Your task to perform on an android device: find which apps use the phone's location Image 0: 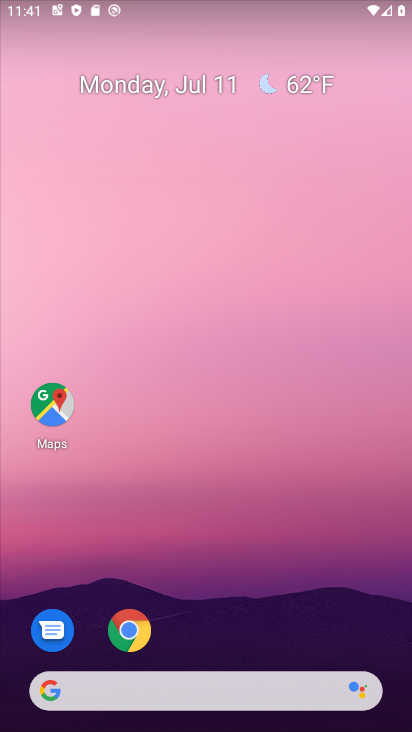
Step 0: drag from (248, 676) to (403, 190)
Your task to perform on an android device: find which apps use the phone's location Image 1: 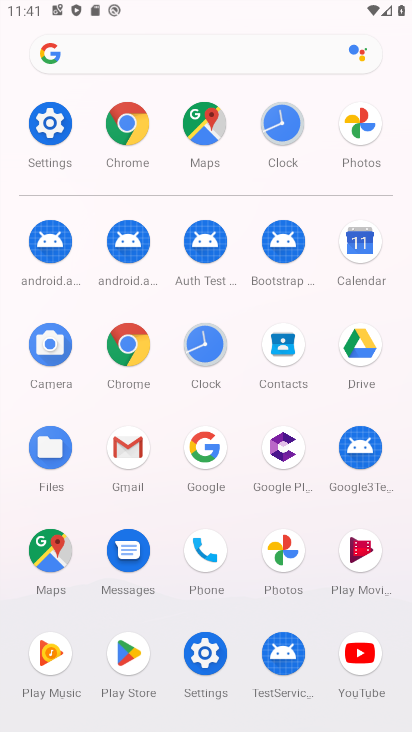
Step 1: click (202, 649)
Your task to perform on an android device: find which apps use the phone's location Image 2: 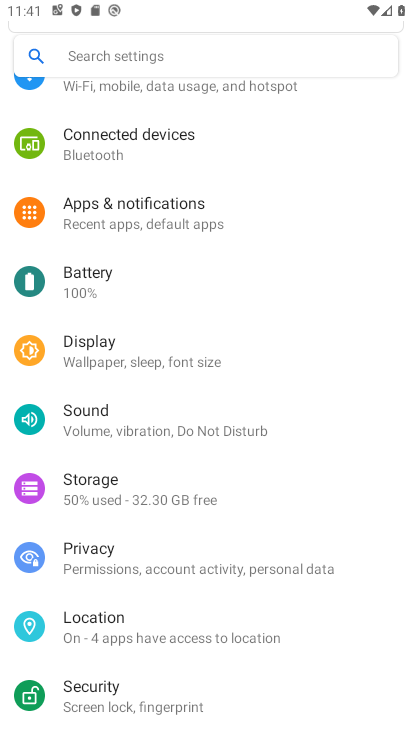
Step 2: click (129, 625)
Your task to perform on an android device: find which apps use the phone's location Image 3: 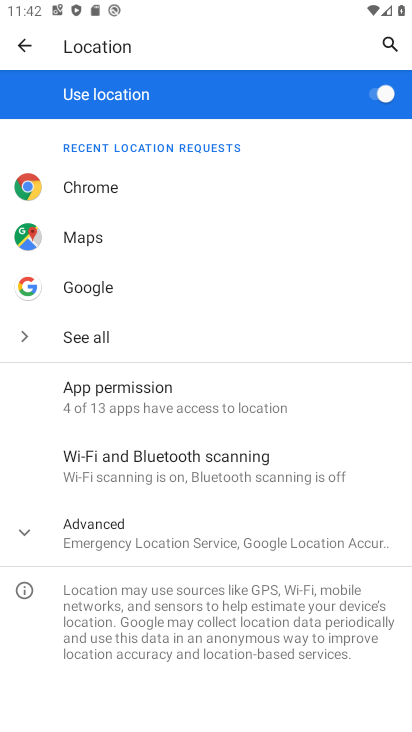
Step 3: task complete